Your task to perform on an android device: Open calendar and show me the fourth week of next month Image 0: 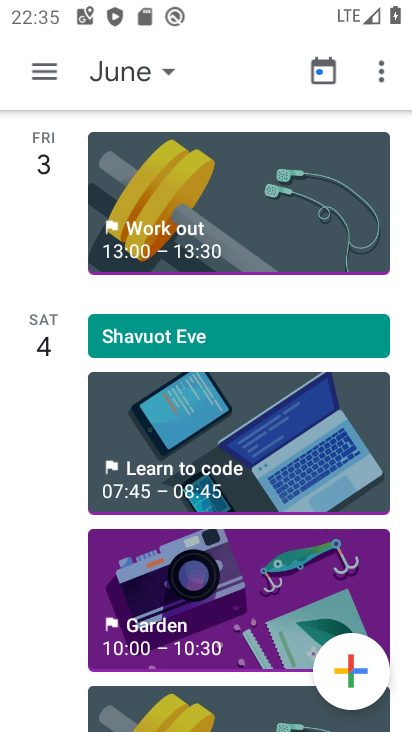
Step 0: press home button
Your task to perform on an android device: Open calendar and show me the fourth week of next month Image 1: 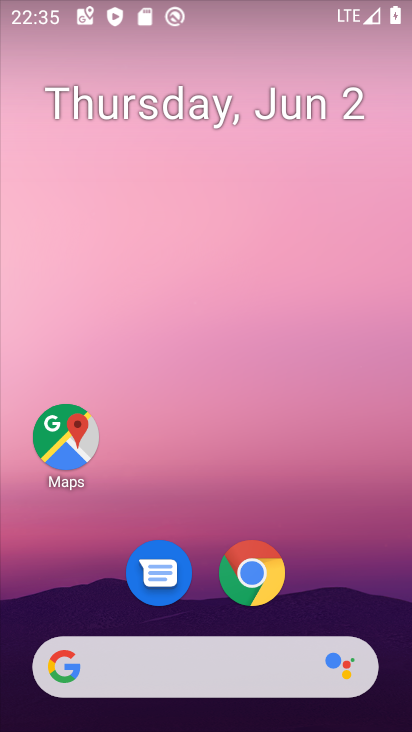
Step 1: click (203, 99)
Your task to perform on an android device: Open calendar and show me the fourth week of next month Image 2: 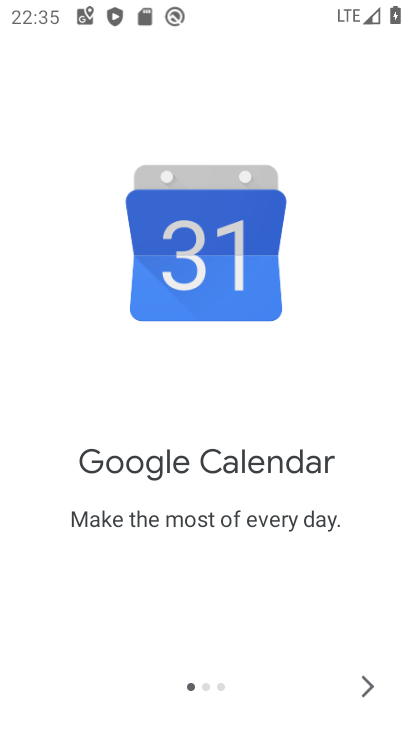
Step 2: click (373, 685)
Your task to perform on an android device: Open calendar and show me the fourth week of next month Image 3: 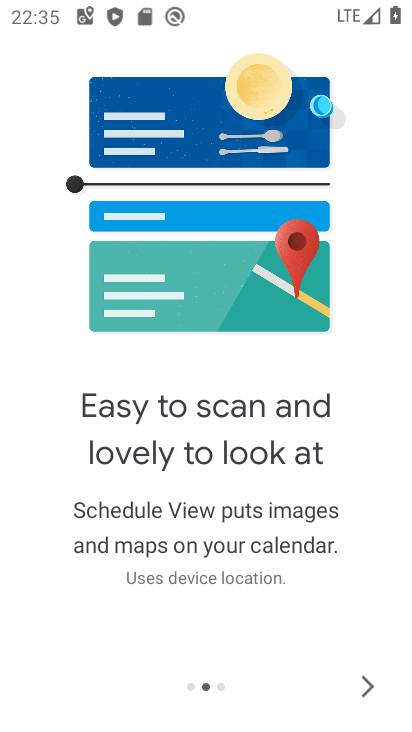
Step 3: click (373, 685)
Your task to perform on an android device: Open calendar and show me the fourth week of next month Image 4: 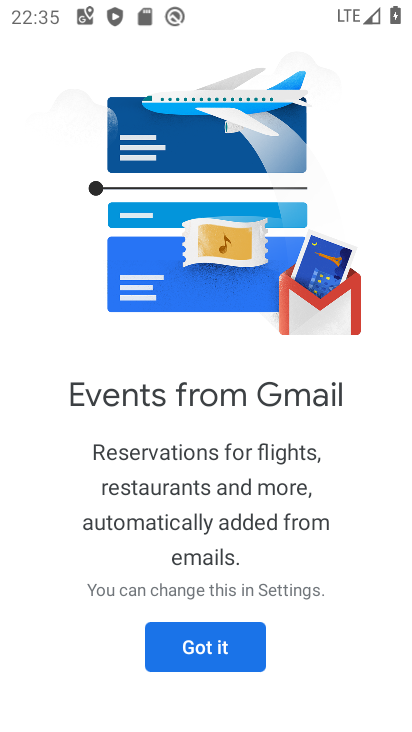
Step 4: click (200, 655)
Your task to perform on an android device: Open calendar and show me the fourth week of next month Image 5: 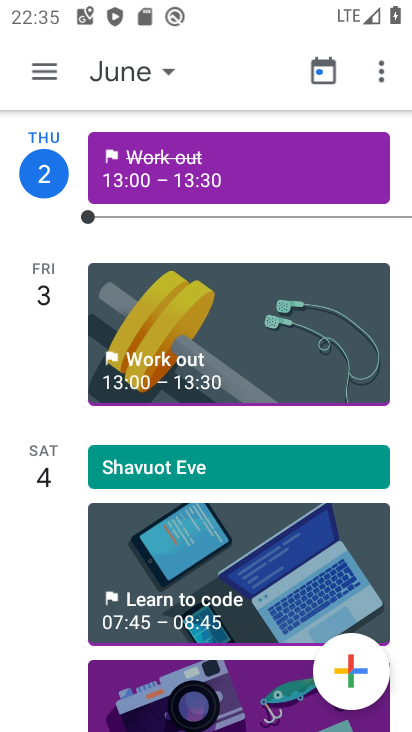
Step 5: click (141, 71)
Your task to perform on an android device: Open calendar and show me the fourth week of next month Image 6: 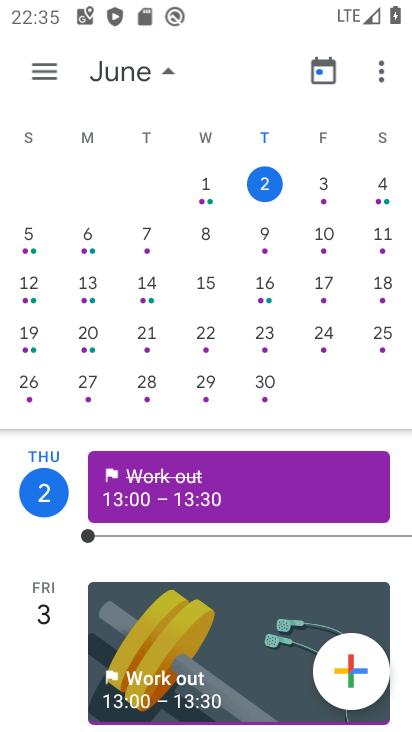
Step 6: drag from (361, 391) to (2, 326)
Your task to perform on an android device: Open calendar and show me the fourth week of next month Image 7: 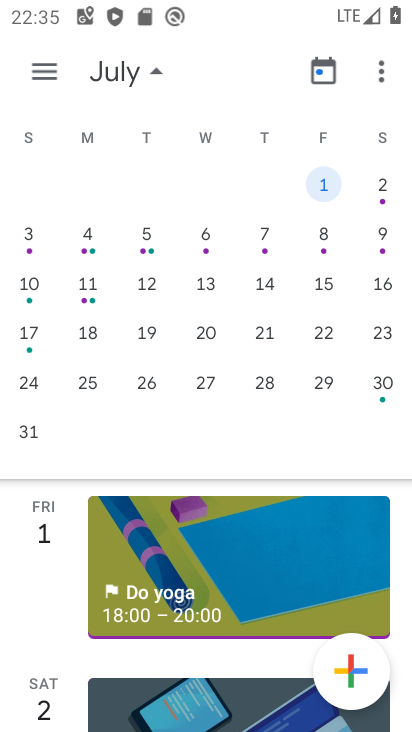
Step 7: click (263, 326)
Your task to perform on an android device: Open calendar and show me the fourth week of next month Image 8: 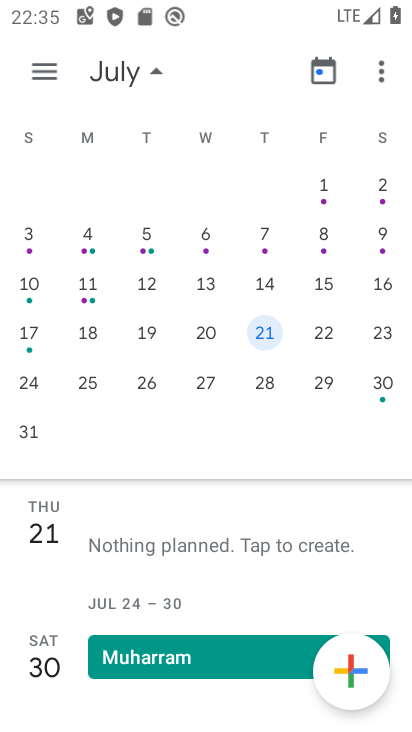
Step 8: drag from (243, 491) to (216, 87)
Your task to perform on an android device: Open calendar and show me the fourth week of next month Image 9: 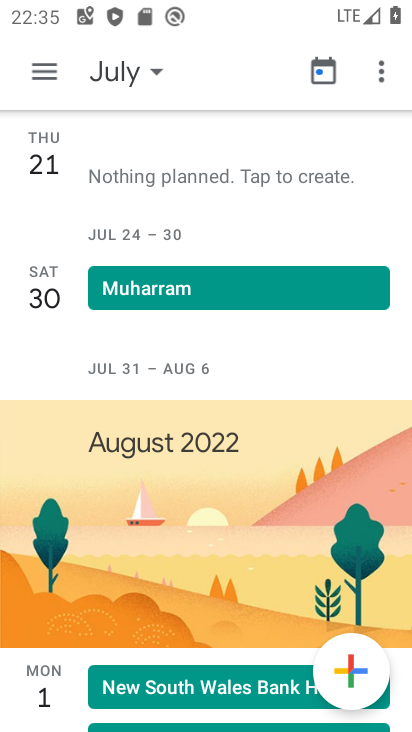
Step 9: click (38, 65)
Your task to perform on an android device: Open calendar and show me the fourth week of next month Image 10: 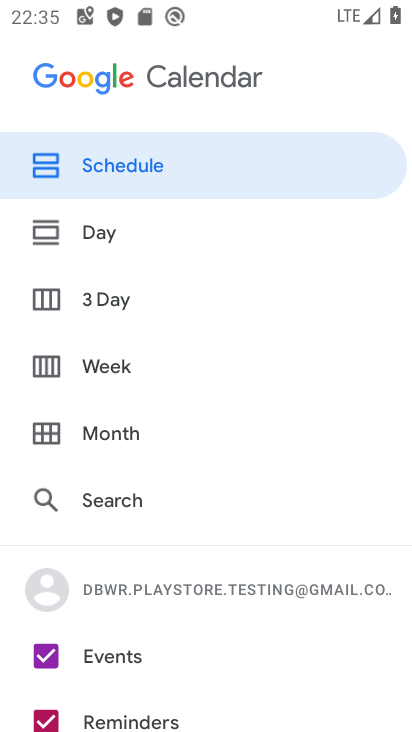
Step 10: click (122, 371)
Your task to perform on an android device: Open calendar and show me the fourth week of next month Image 11: 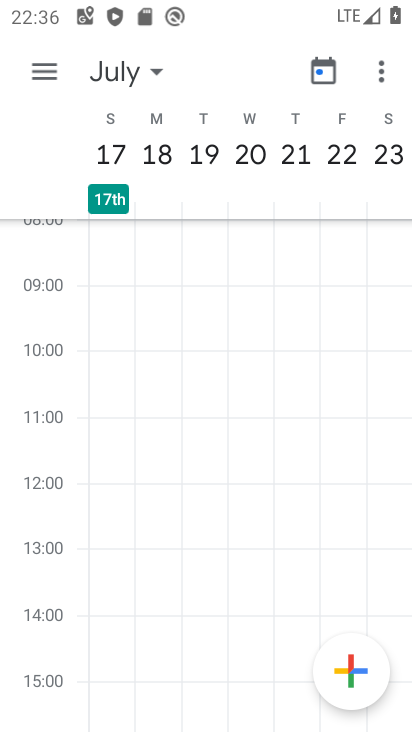
Step 11: task complete